Your task to perform on an android device: turn smart compose on in the gmail app Image 0: 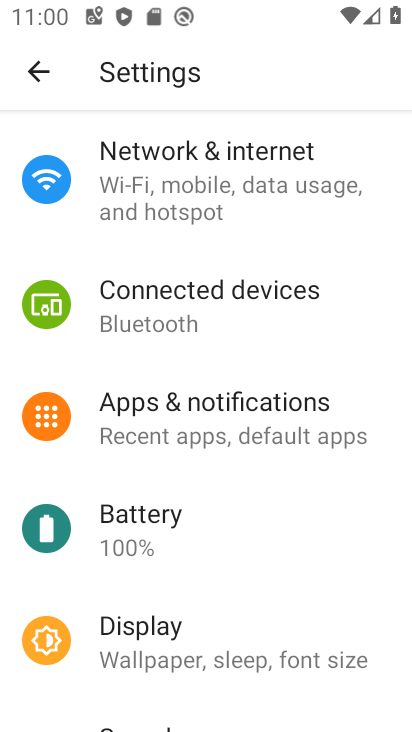
Step 0: press home button
Your task to perform on an android device: turn smart compose on in the gmail app Image 1: 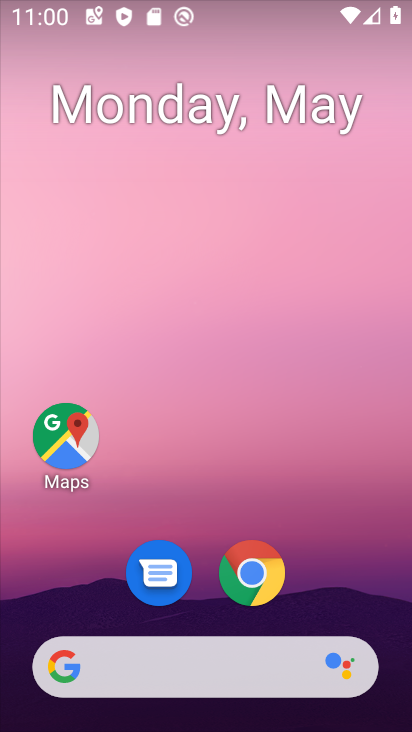
Step 1: drag from (350, 596) to (277, 53)
Your task to perform on an android device: turn smart compose on in the gmail app Image 2: 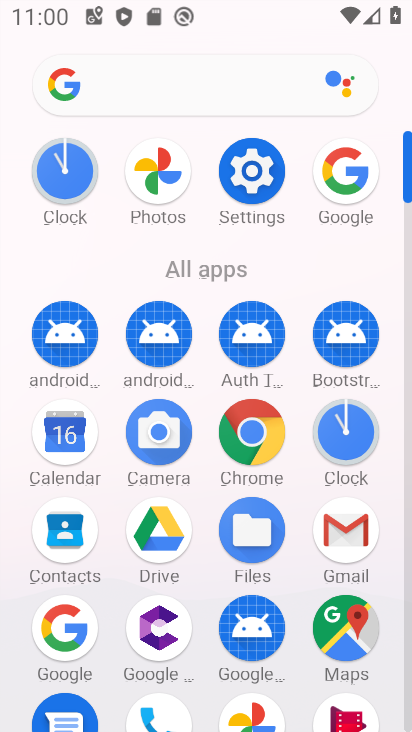
Step 2: click (342, 524)
Your task to perform on an android device: turn smart compose on in the gmail app Image 3: 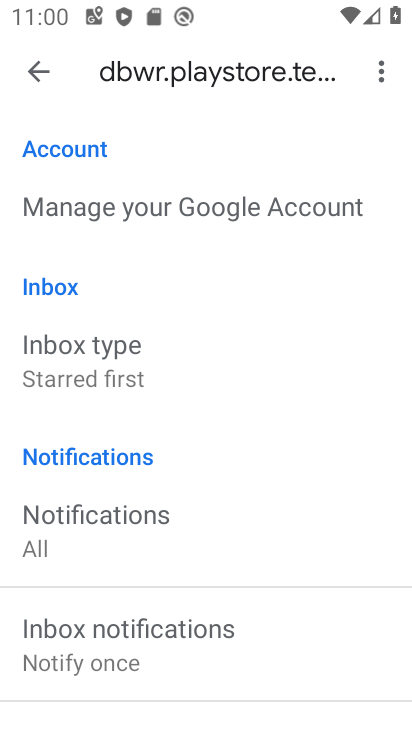
Step 3: task complete